Your task to perform on an android device: toggle pop-ups in chrome Image 0: 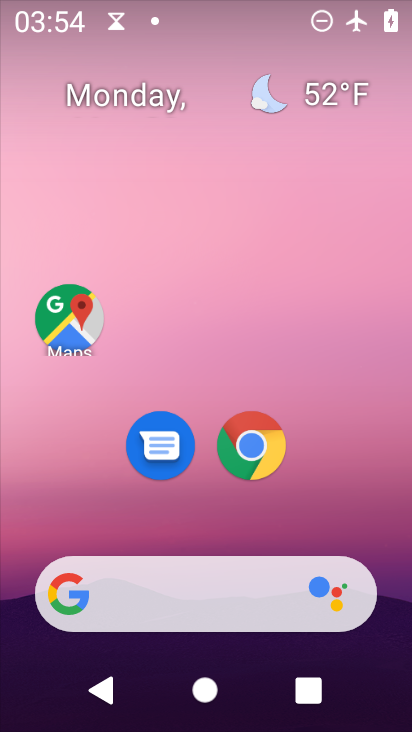
Step 0: click (262, 452)
Your task to perform on an android device: toggle pop-ups in chrome Image 1: 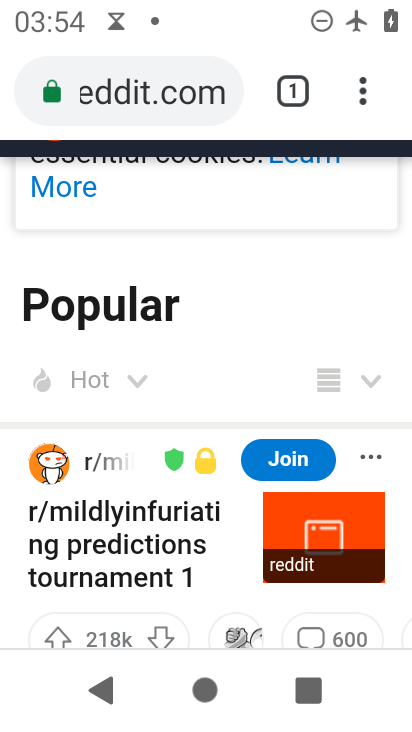
Step 1: click (362, 93)
Your task to perform on an android device: toggle pop-ups in chrome Image 2: 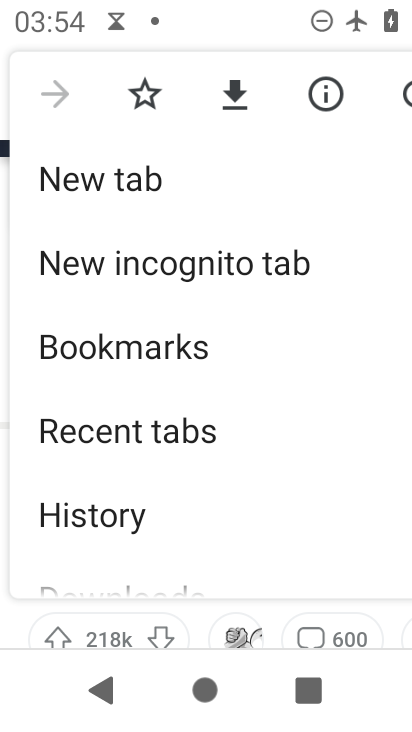
Step 2: drag from (115, 540) to (176, 131)
Your task to perform on an android device: toggle pop-ups in chrome Image 3: 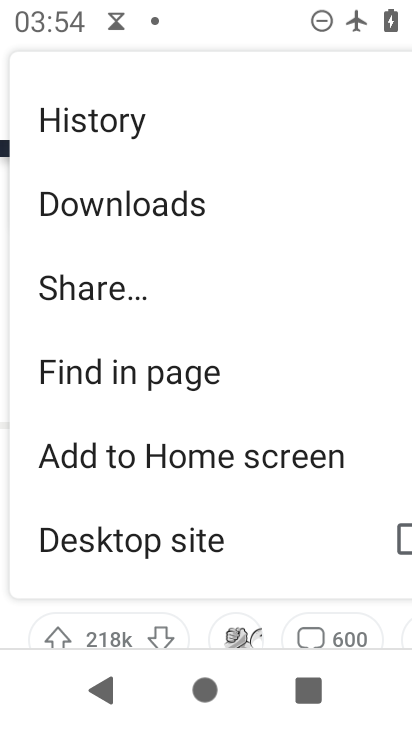
Step 3: drag from (130, 494) to (194, 214)
Your task to perform on an android device: toggle pop-ups in chrome Image 4: 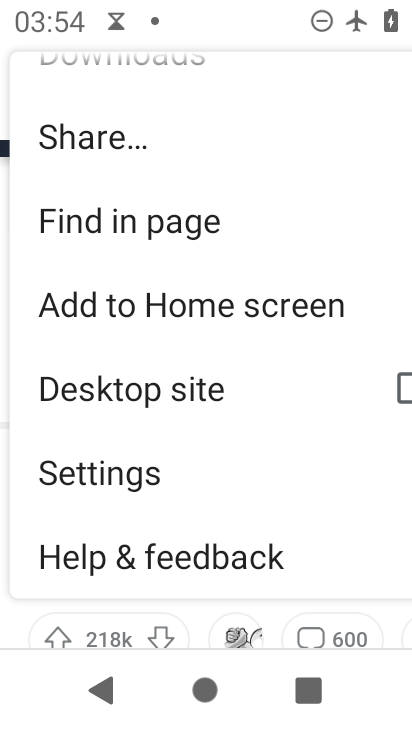
Step 4: click (139, 482)
Your task to perform on an android device: toggle pop-ups in chrome Image 5: 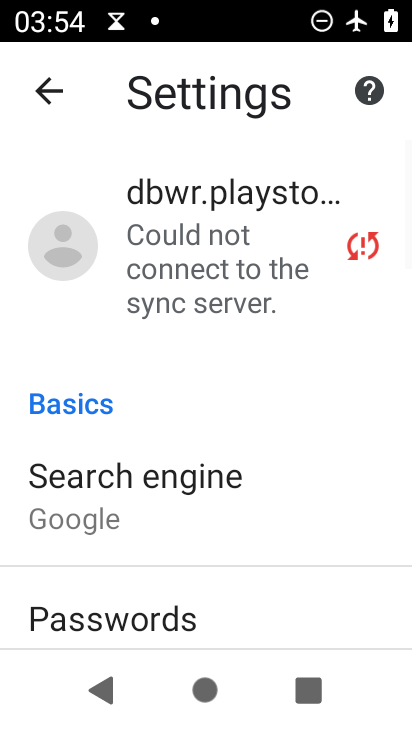
Step 5: drag from (193, 548) to (232, 204)
Your task to perform on an android device: toggle pop-ups in chrome Image 6: 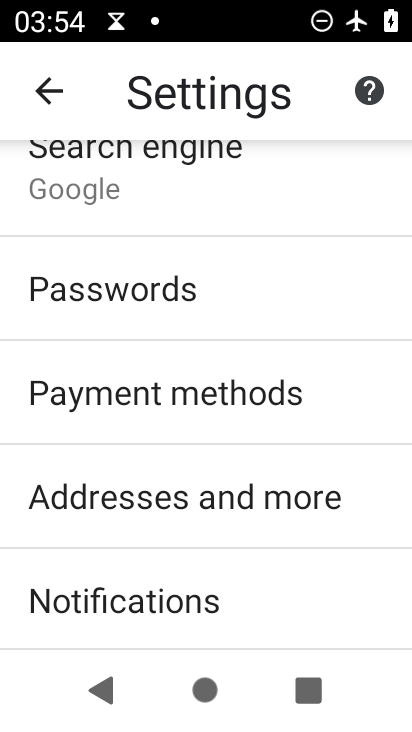
Step 6: drag from (173, 538) to (217, 258)
Your task to perform on an android device: toggle pop-ups in chrome Image 7: 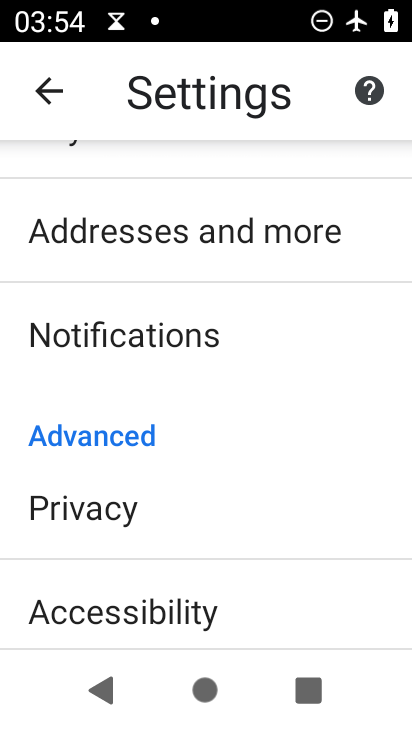
Step 7: drag from (145, 558) to (190, 241)
Your task to perform on an android device: toggle pop-ups in chrome Image 8: 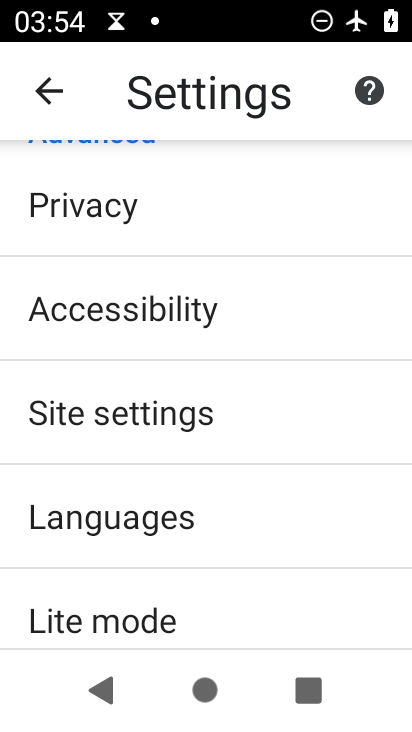
Step 8: drag from (119, 600) to (162, 280)
Your task to perform on an android device: toggle pop-ups in chrome Image 9: 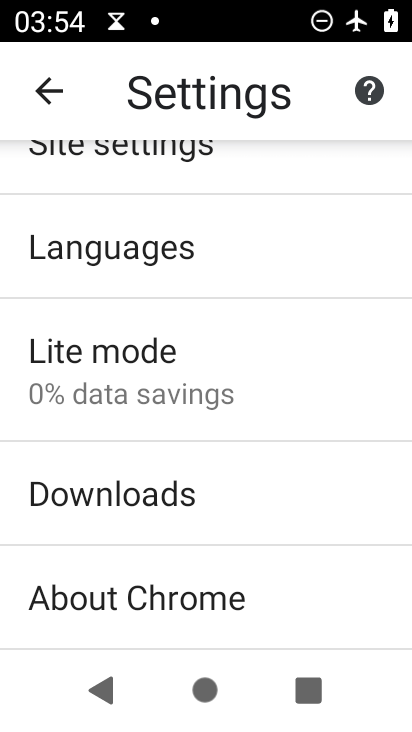
Step 9: click (147, 172)
Your task to perform on an android device: toggle pop-ups in chrome Image 10: 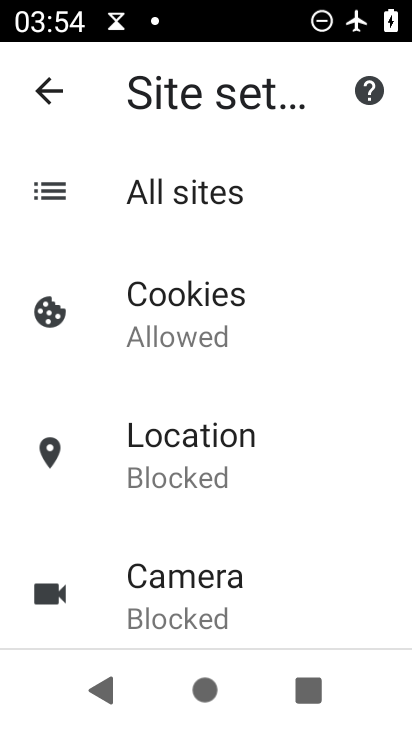
Step 10: drag from (202, 530) to (235, 144)
Your task to perform on an android device: toggle pop-ups in chrome Image 11: 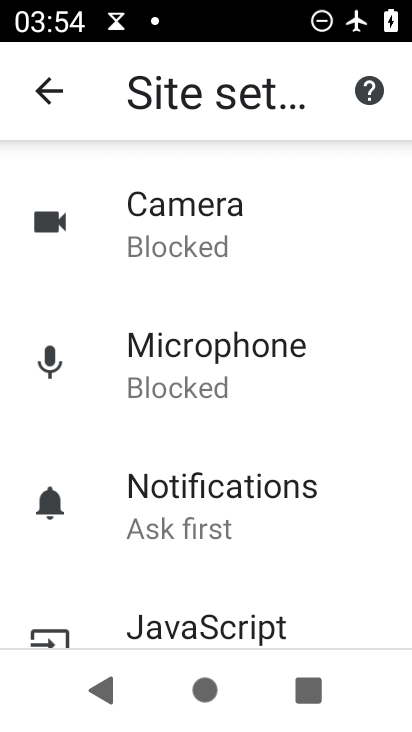
Step 11: drag from (235, 499) to (248, 188)
Your task to perform on an android device: toggle pop-ups in chrome Image 12: 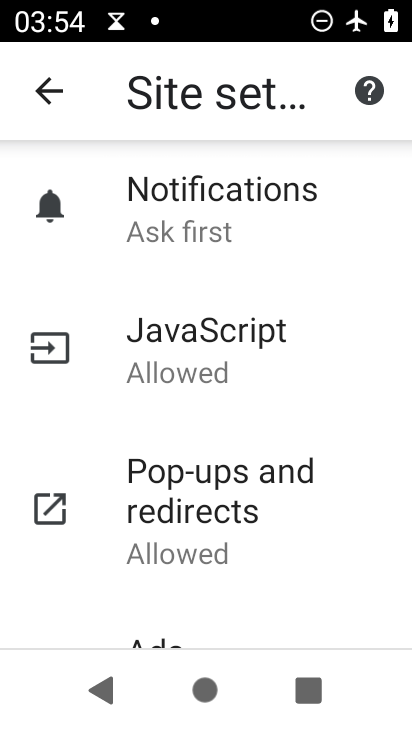
Step 12: click (221, 507)
Your task to perform on an android device: toggle pop-ups in chrome Image 13: 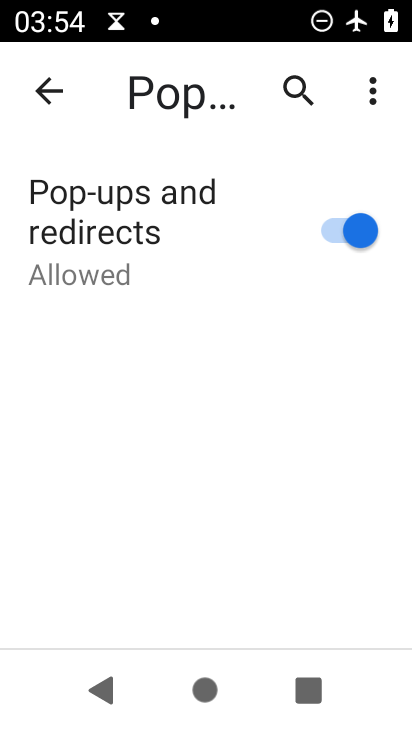
Step 13: click (319, 223)
Your task to perform on an android device: toggle pop-ups in chrome Image 14: 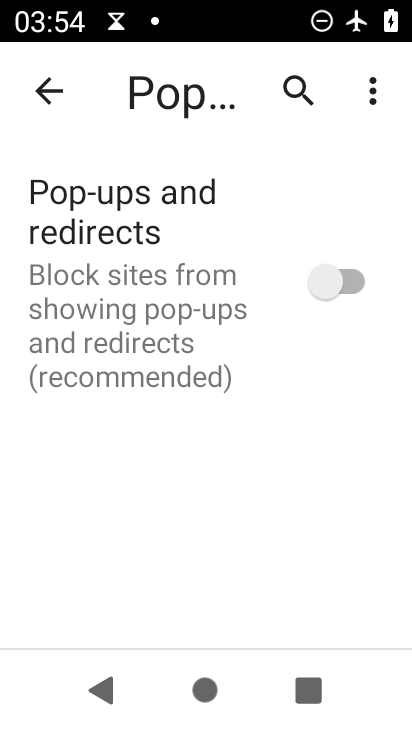
Step 14: task complete